Your task to perform on an android device: Is it going to rain tomorrow? Image 0: 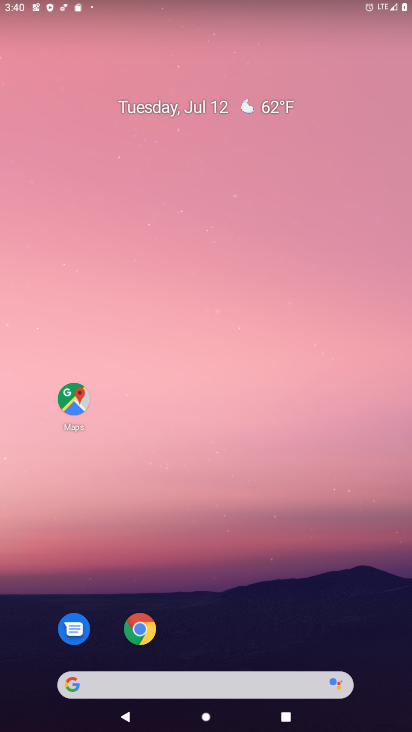
Step 0: drag from (206, 668) to (168, 72)
Your task to perform on an android device: Is it going to rain tomorrow? Image 1: 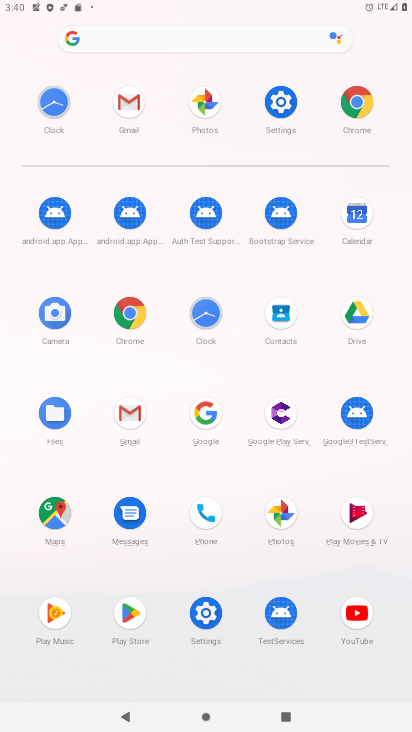
Step 1: click (204, 418)
Your task to perform on an android device: Is it going to rain tomorrow? Image 2: 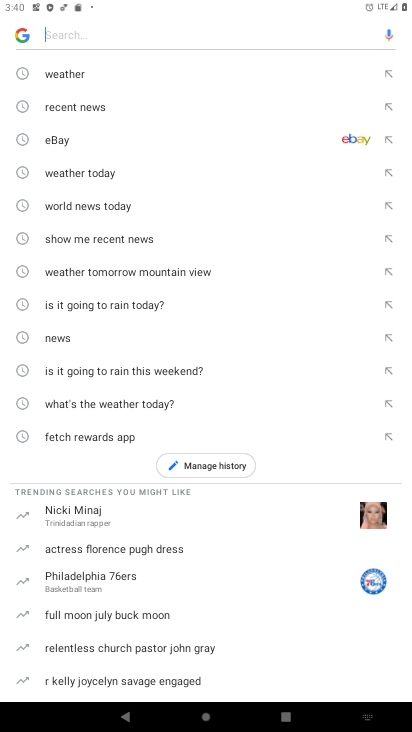
Step 2: click (60, 77)
Your task to perform on an android device: Is it going to rain tomorrow? Image 3: 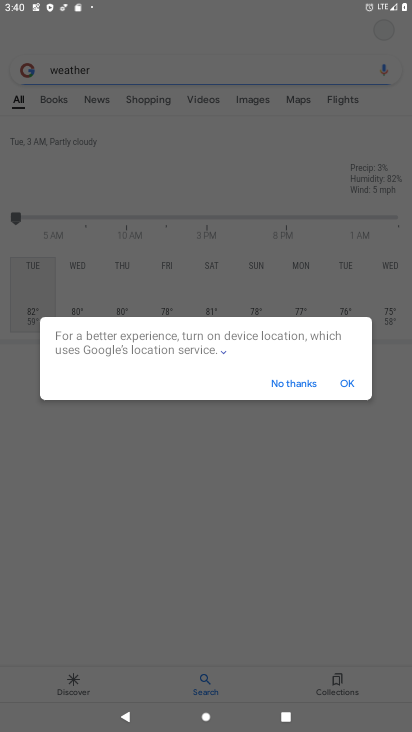
Step 3: click (347, 387)
Your task to perform on an android device: Is it going to rain tomorrow? Image 4: 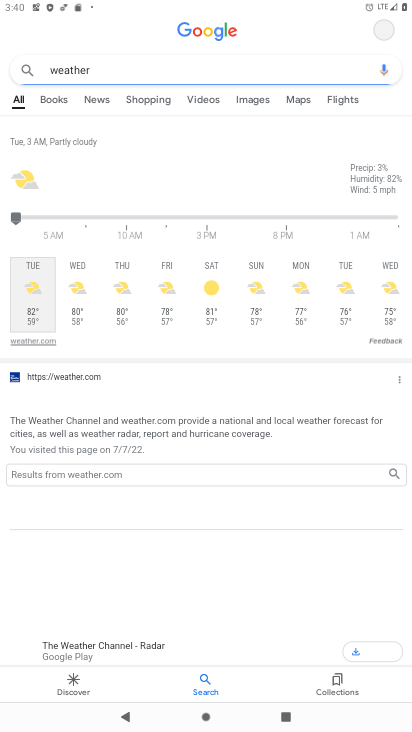
Step 4: click (68, 298)
Your task to perform on an android device: Is it going to rain tomorrow? Image 5: 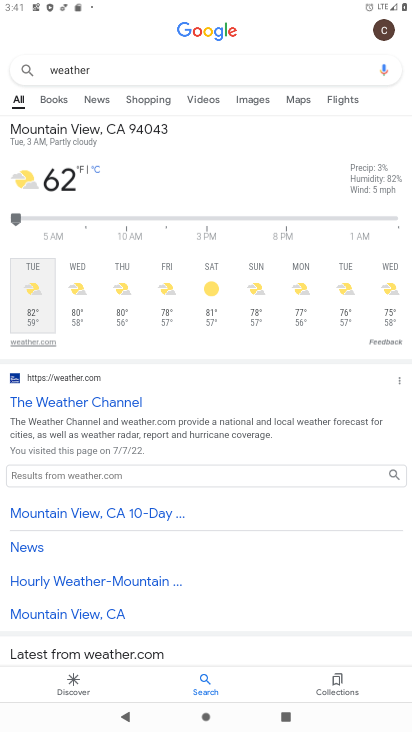
Step 5: task complete